Your task to perform on an android device: turn on wifi Image 0: 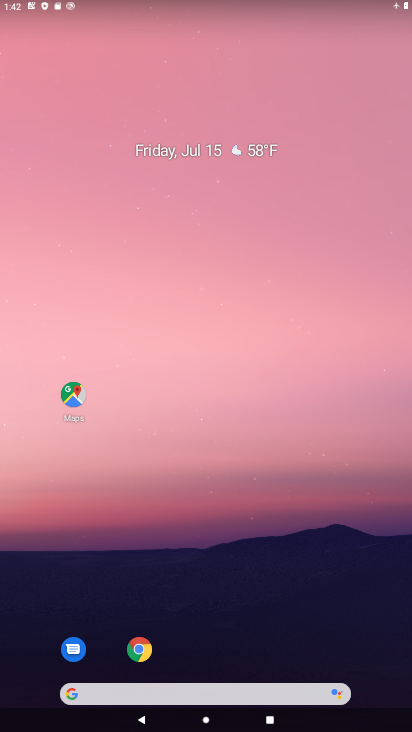
Step 0: drag from (291, 597) to (272, 12)
Your task to perform on an android device: turn on wifi Image 1: 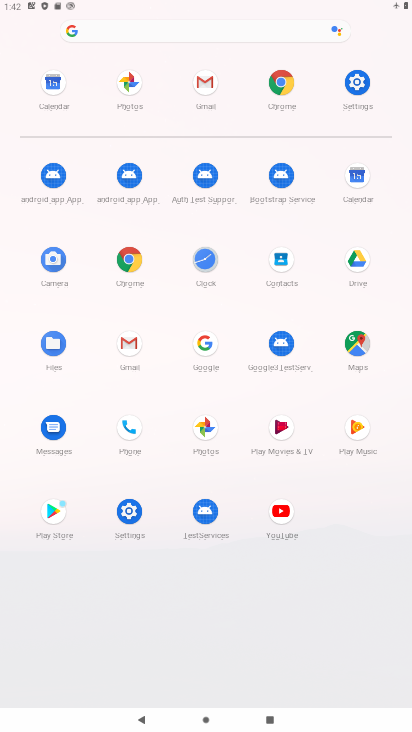
Step 1: click (346, 80)
Your task to perform on an android device: turn on wifi Image 2: 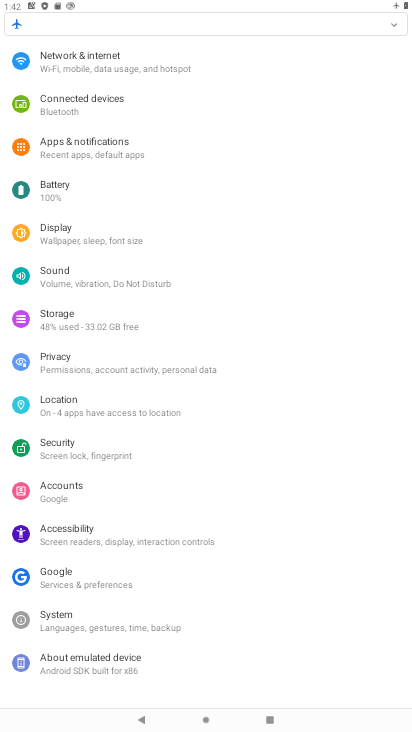
Step 2: click (140, 59)
Your task to perform on an android device: turn on wifi Image 3: 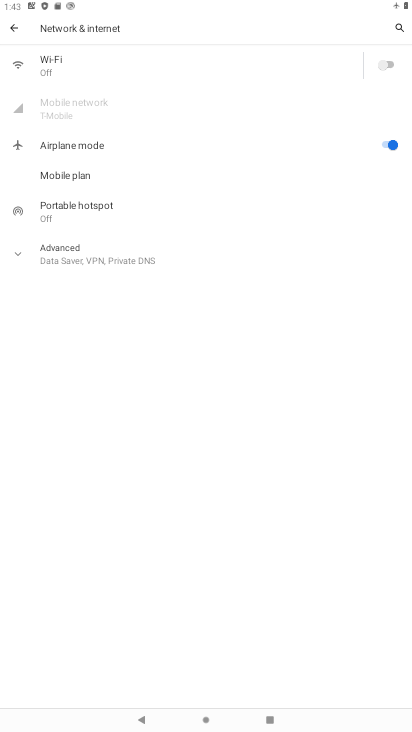
Step 3: task complete